Your task to perform on an android device: Toggle the flashlight Image 0: 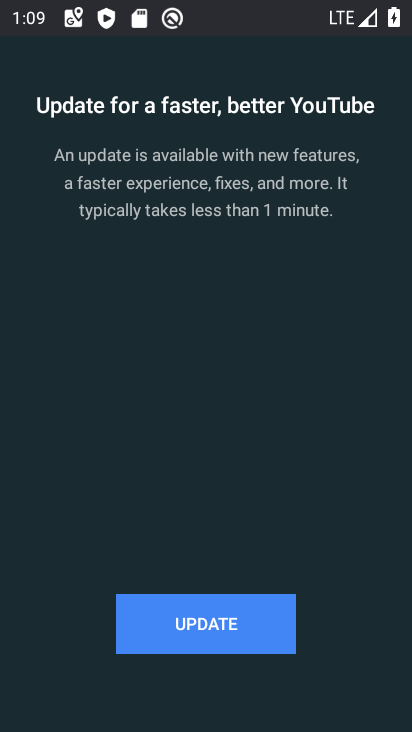
Step 0: press home button
Your task to perform on an android device: Toggle the flashlight Image 1: 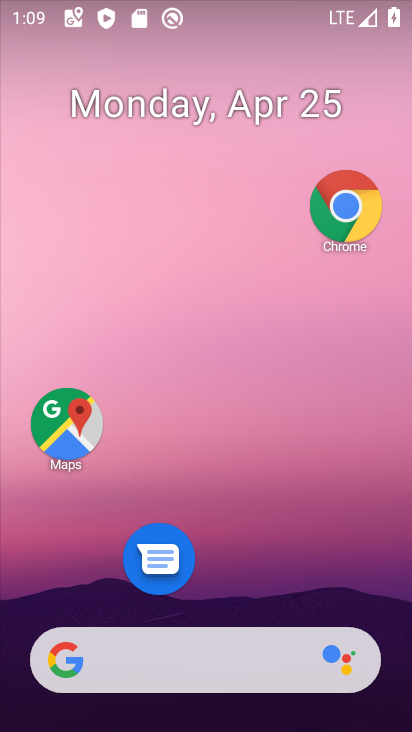
Step 1: drag from (234, 596) to (284, 68)
Your task to perform on an android device: Toggle the flashlight Image 2: 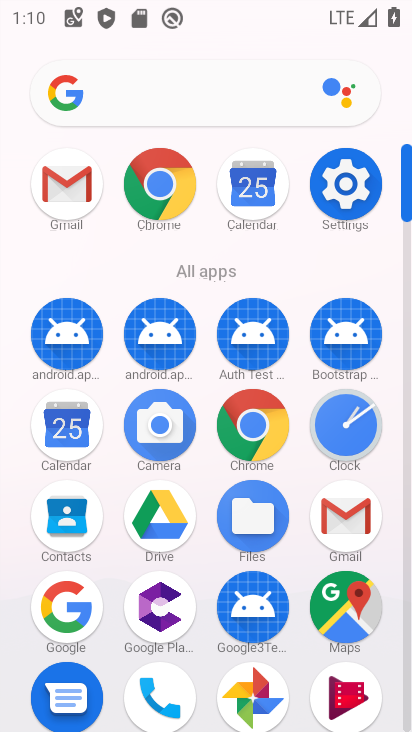
Step 2: click (350, 184)
Your task to perform on an android device: Toggle the flashlight Image 3: 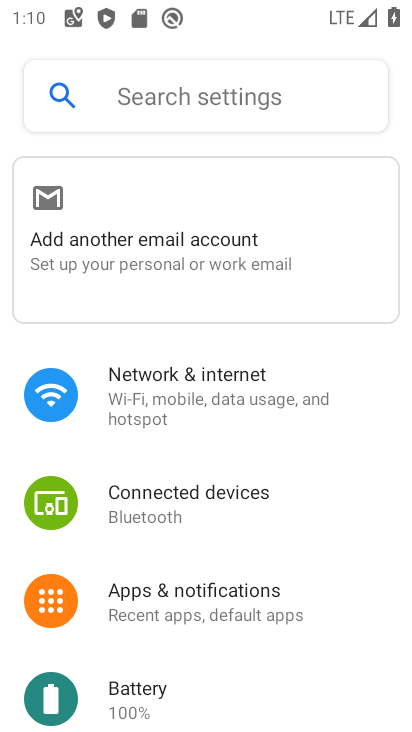
Step 3: click (183, 89)
Your task to perform on an android device: Toggle the flashlight Image 4: 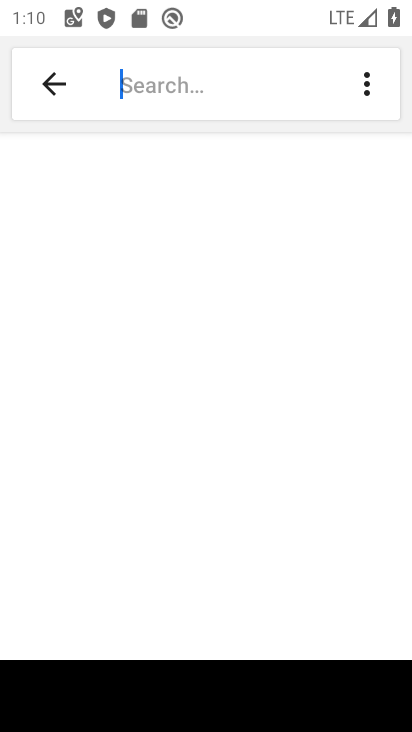
Step 4: type "flashlight"
Your task to perform on an android device: Toggle the flashlight Image 5: 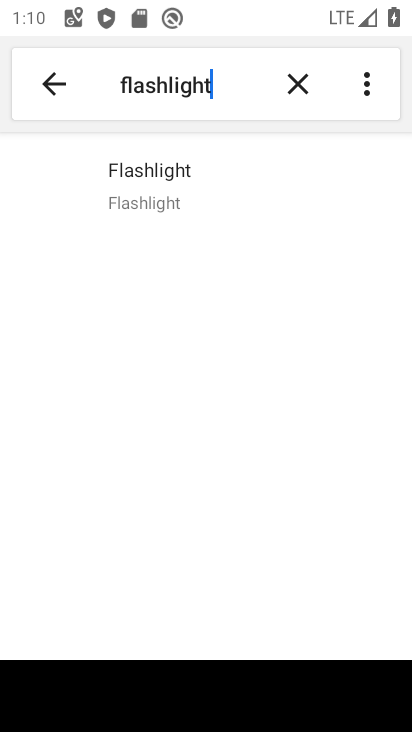
Step 5: click (134, 197)
Your task to perform on an android device: Toggle the flashlight Image 6: 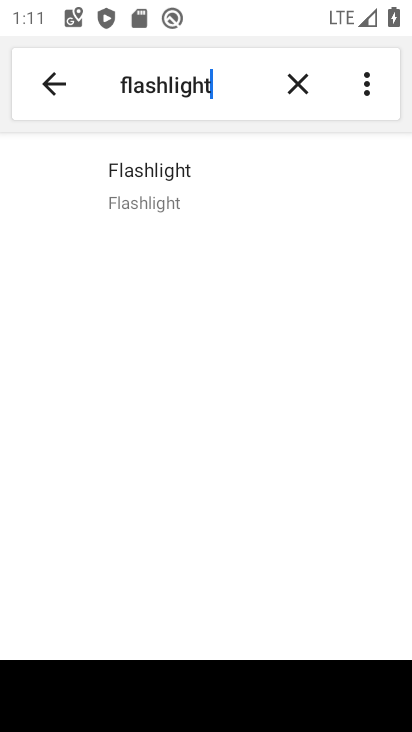
Step 6: task complete